Your task to perform on an android device: What's on my calendar today? Image 0: 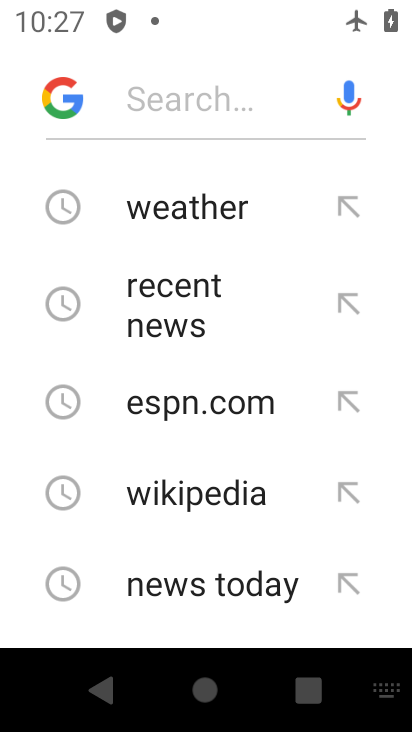
Step 0: press home button
Your task to perform on an android device: What's on my calendar today? Image 1: 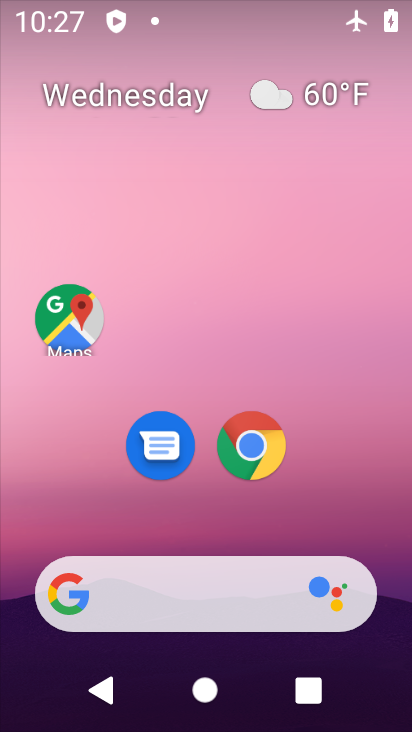
Step 1: drag from (206, 479) to (172, 144)
Your task to perform on an android device: What's on my calendar today? Image 2: 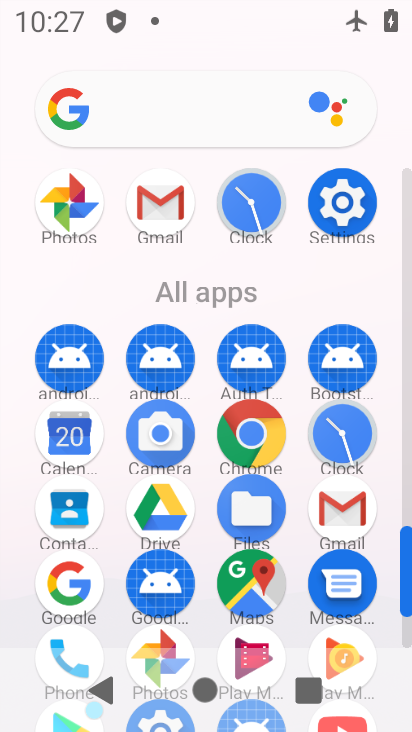
Step 2: click (63, 435)
Your task to perform on an android device: What's on my calendar today? Image 3: 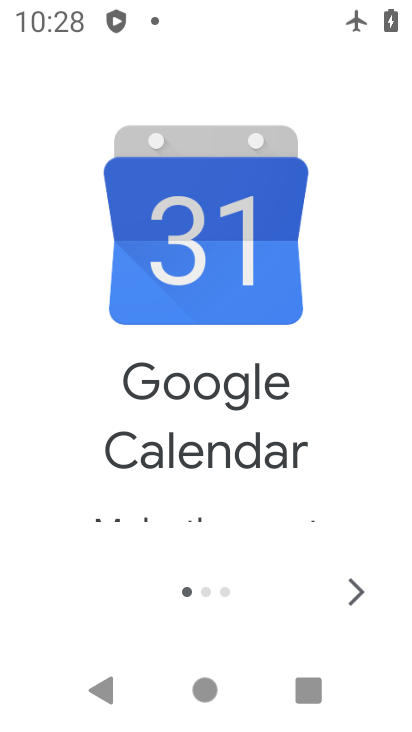
Step 3: click (358, 573)
Your task to perform on an android device: What's on my calendar today? Image 4: 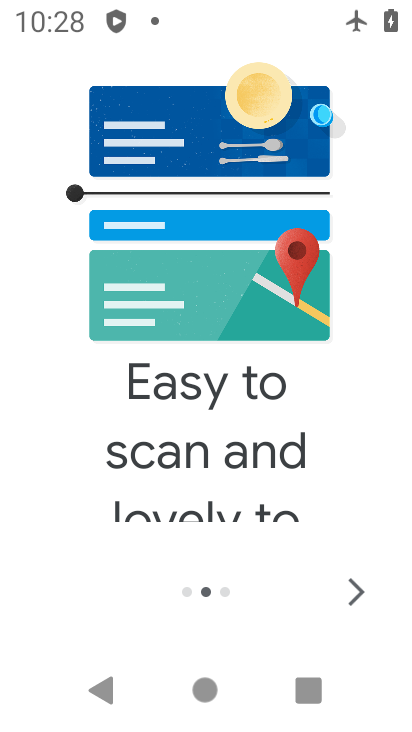
Step 4: click (358, 573)
Your task to perform on an android device: What's on my calendar today? Image 5: 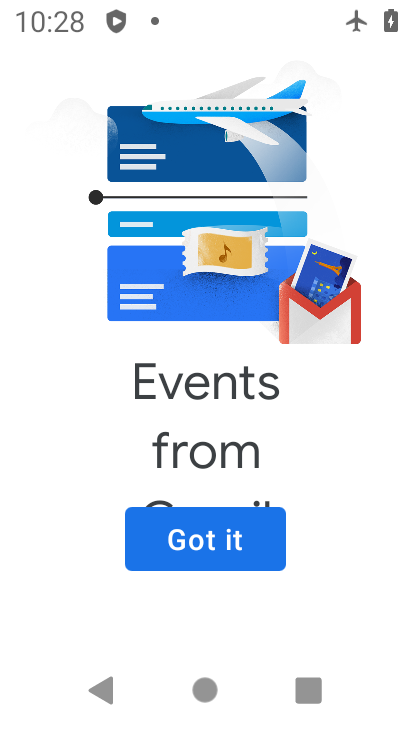
Step 5: click (247, 547)
Your task to perform on an android device: What's on my calendar today? Image 6: 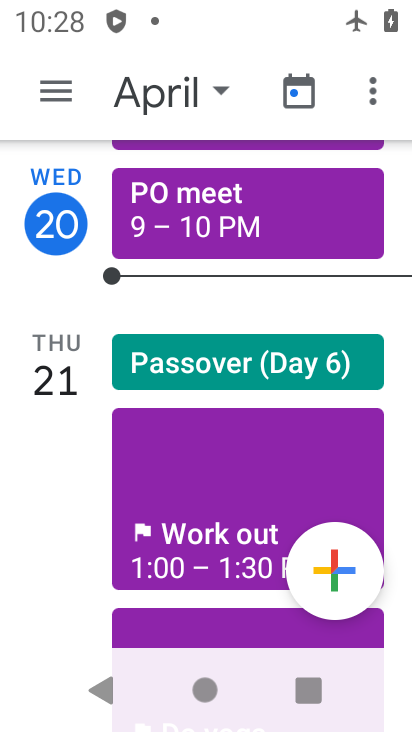
Step 6: click (193, 86)
Your task to perform on an android device: What's on my calendar today? Image 7: 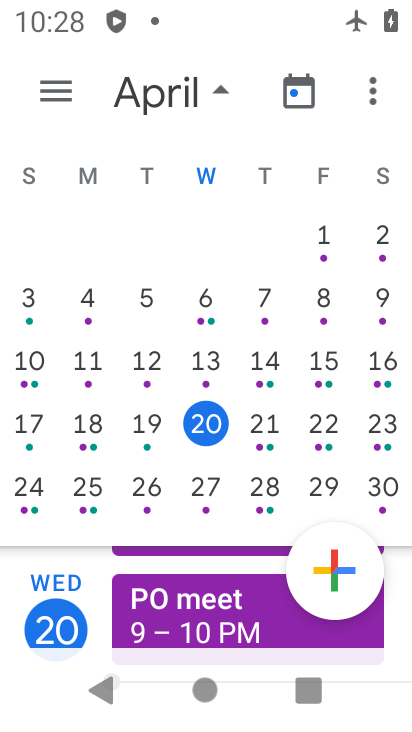
Step 7: click (198, 416)
Your task to perform on an android device: What's on my calendar today? Image 8: 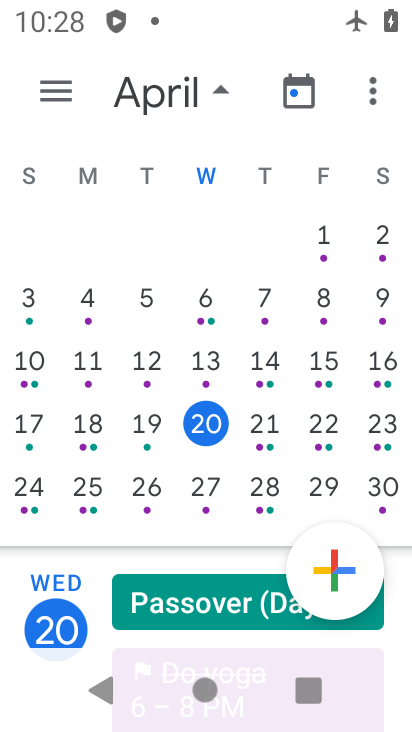
Step 8: drag from (230, 534) to (276, 238)
Your task to perform on an android device: What's on my calendar today? Image 9: 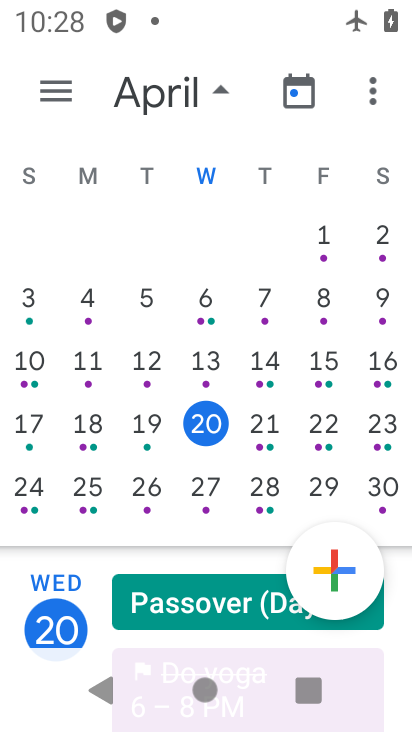
Step 9: drag from (223, 601) to (237, 503)
Your task to perform on an android device: What's on my calendar today? Image 10: 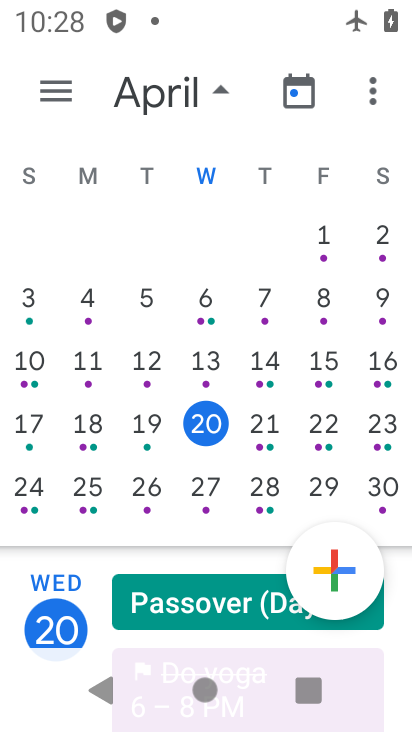
Step 10: click (233, 598)
Your task to perform on an android device: What's on my calendar today? Image 11: 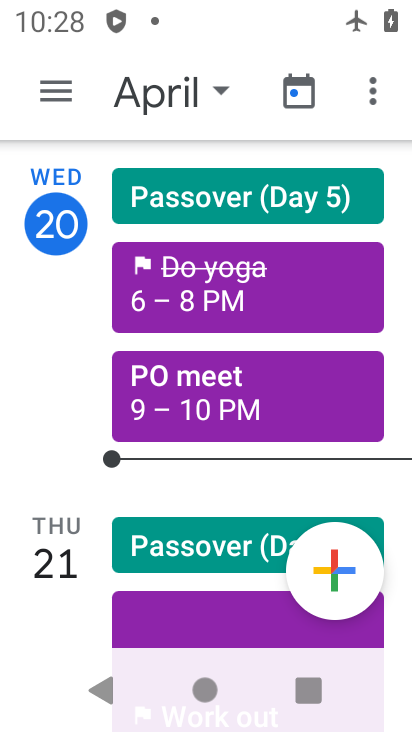
Step 11: task complete